Your task to perform on an android device: delete location history Image 0: 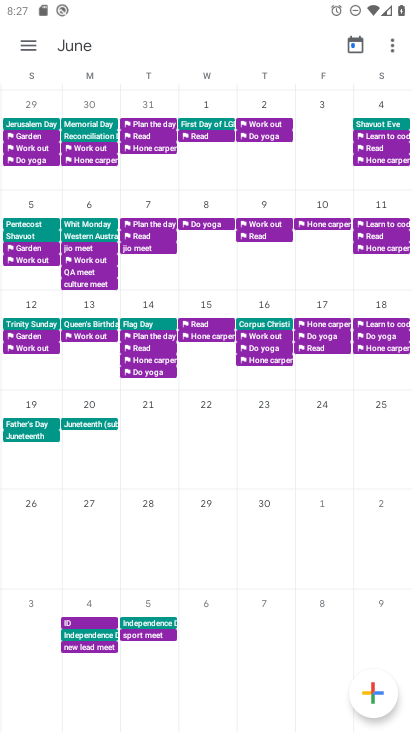
Step 0: press home button
Your task to perform on an android device: delete location history Image 1: 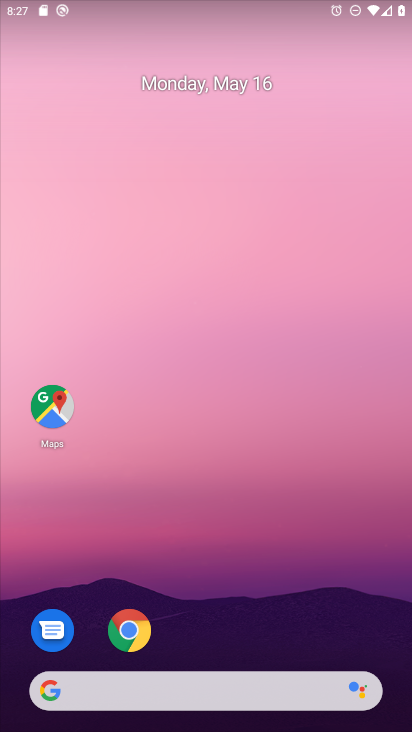
Step 1: drag from (291, 583) to (162, 118)
Your task to perform on an android device: delete location history Image 2: 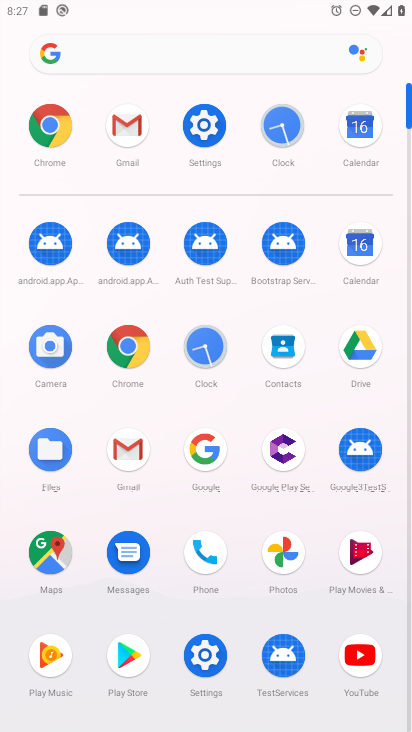
Step 2: click (200, 126)
Your task to perform on an android device: delete location history Image 3: 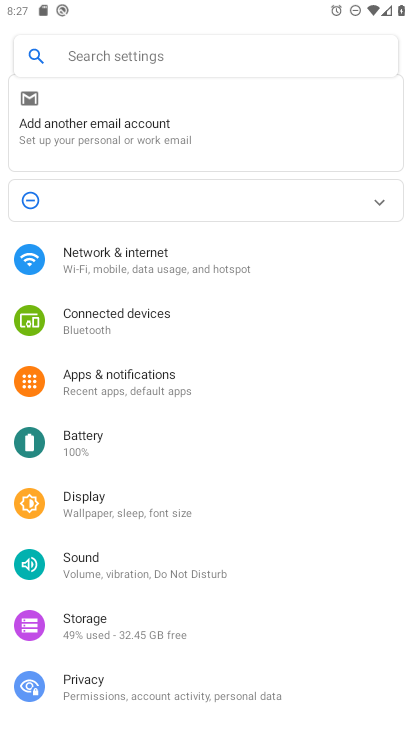
Step 3: drag from (210, 561) to (206, 162)
Your task to perform on an android device: delete location history Image 4: 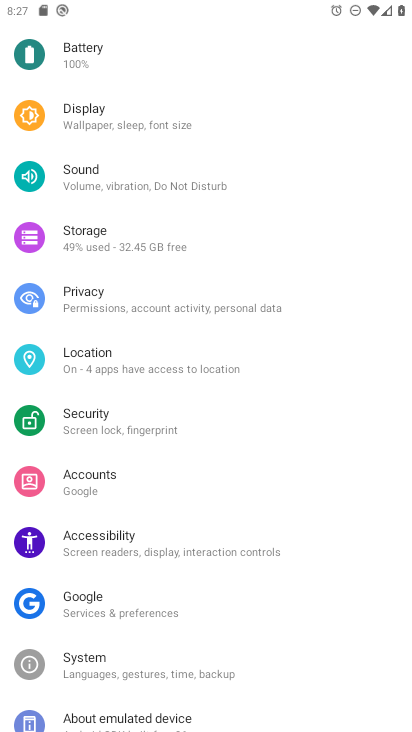
Step 4: drag from (207, 583) to (212, 242)
Your task to perform on an android device: delete location history Image 5: 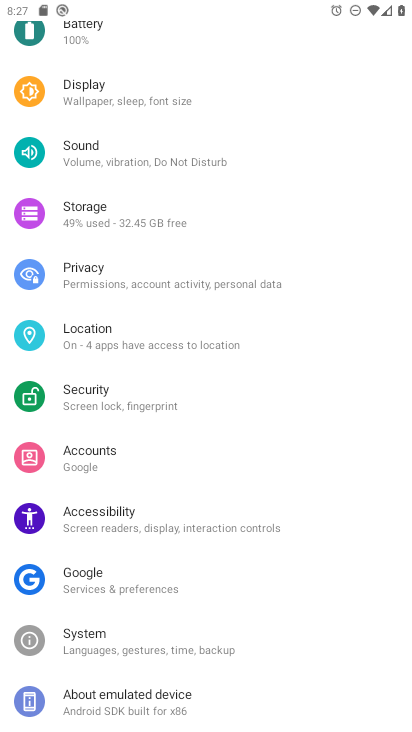
Step 5: drag from (262, 212) to (210, 571)
Your task to perform on an android device: delete location history Image 6: 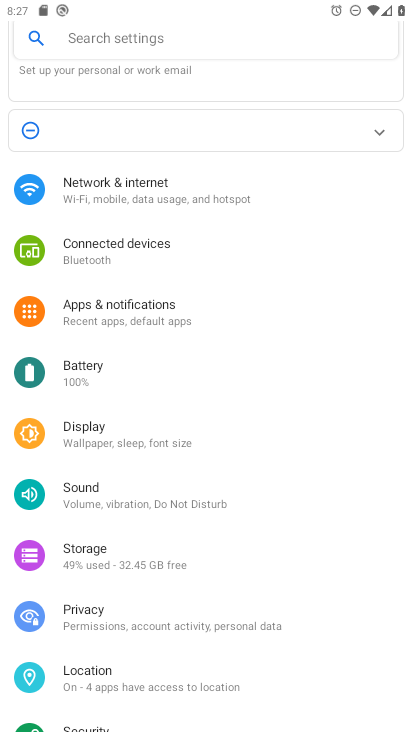
Step 6: click (154, 667)
Your task to perform on an android device: delete location history Image 7: 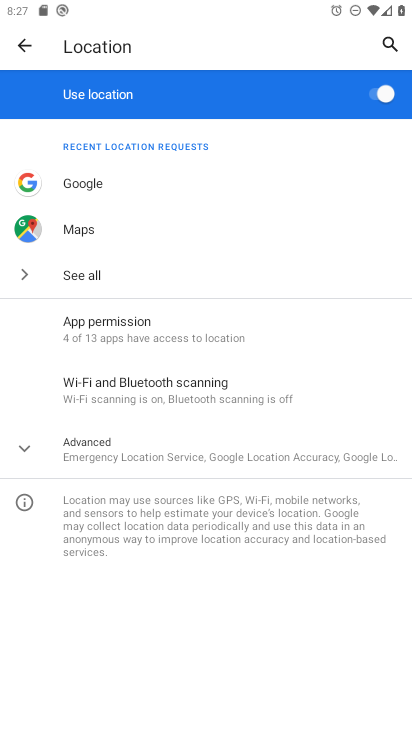
Step 7: click (101, 438)
Your task to perform on an android device: delete location history Image 8: 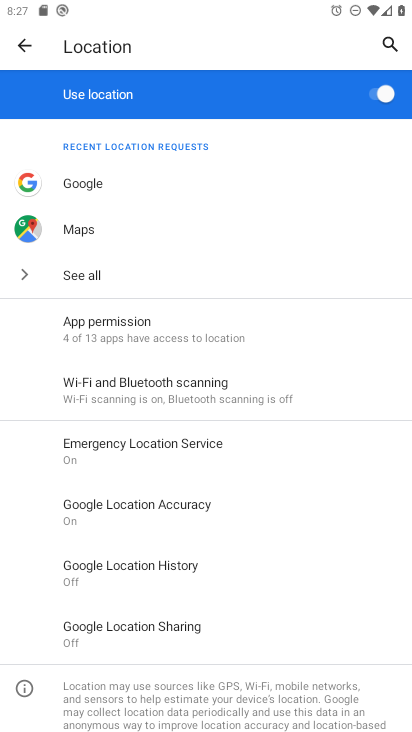
Step 8: drag from (243, 586) to (244, 230)
Your task to perform on an android device: delete location history Image 9: 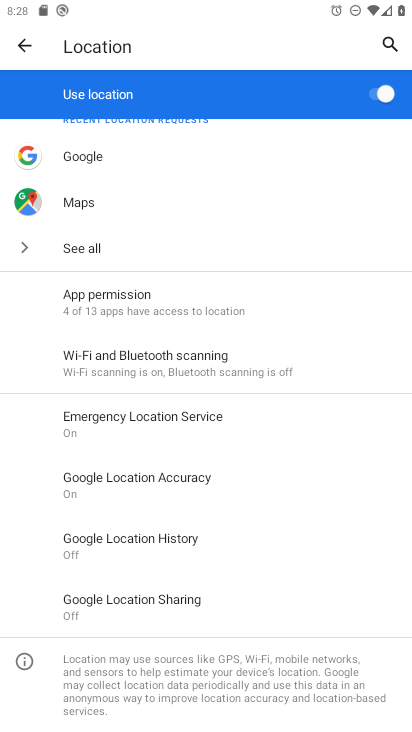
Step 9: click (85, 537)
Your task to perform on an android device: delete location history Image 10: 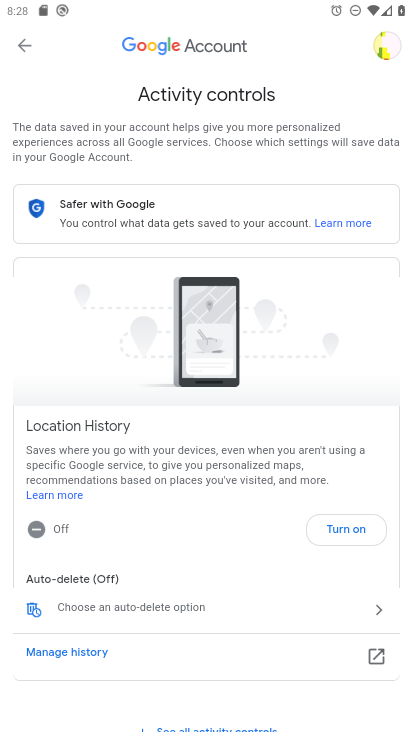
Step 10: drag from (164, 570) to (230, 239)
Your task to perform on an android device: delete location history Image 11: 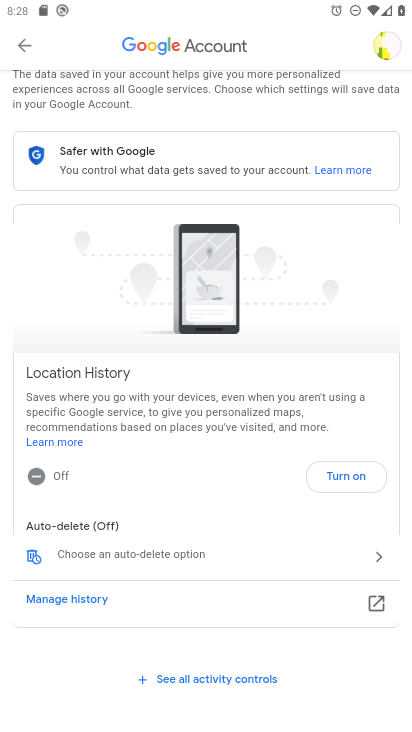
Step 11: click (38, 545)
Your task to perform on an android device: delete location history Image 12: 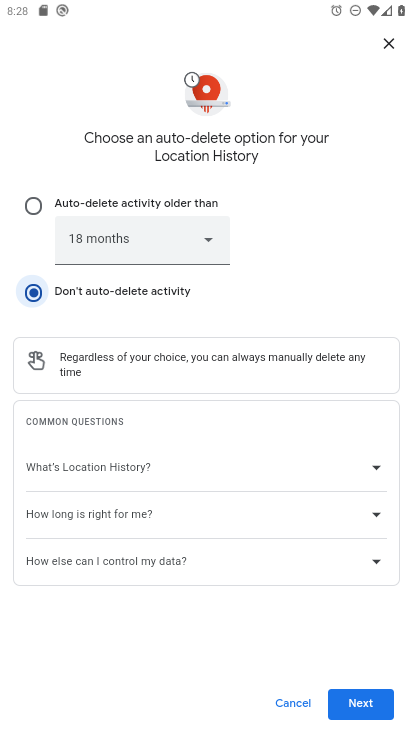
Step 12: click (344, 695)
Your task to perform on an android device: delete location history Image 13: 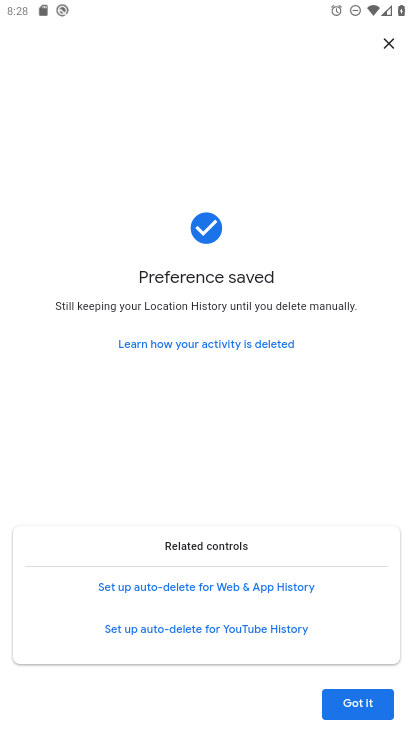
Step 13: click (341, 697)
Your task to perform on an android device: delete location history Image 14: 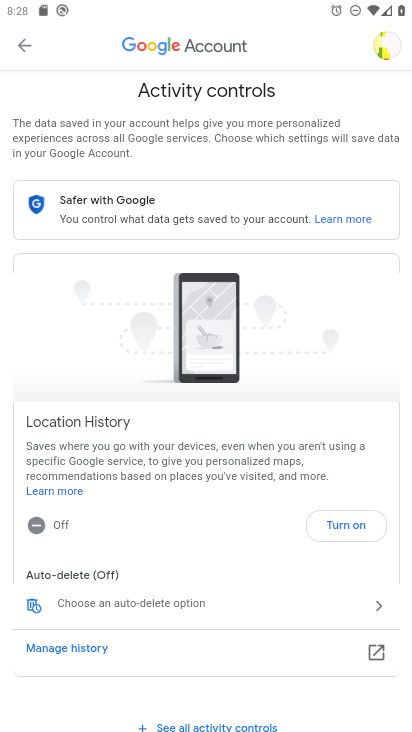
Step 14: task complete